Your task to perform on an android device: turn notification dots on Image 0: 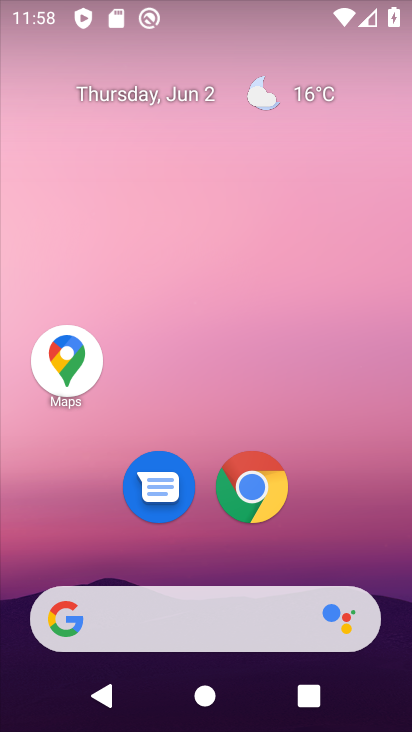
Step 0: drag from (344, 569) to (293, 161)
Your task to perform on an android device: turn notification dots on Image 1: 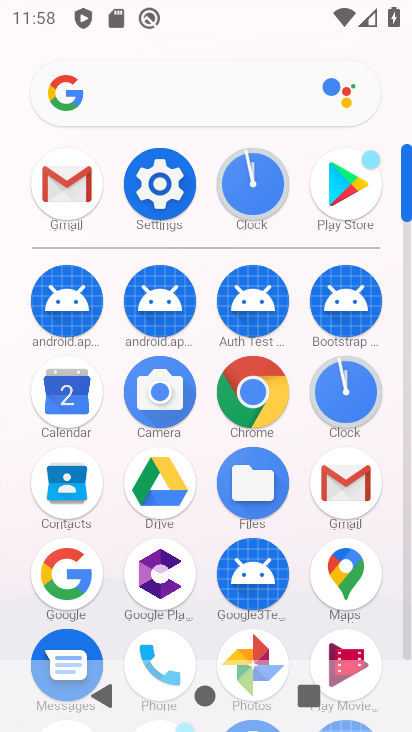
Step 1: click (155, 177)
Your task to perform on an android device: turn notification dots on Image 2: 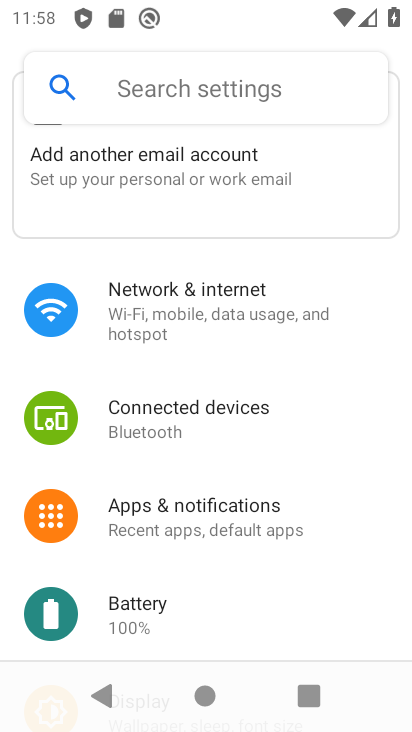
Step 2: click (163, 524)
Your task to perform on an android device: turn notification dots on Image 3: 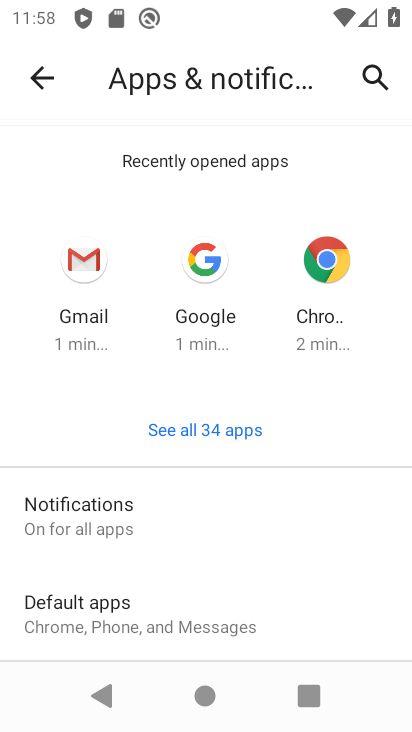
Step 3: drag from (355, 629) to (320, 261)
Your task to perform on an android device: turn notification dots on Image 4: 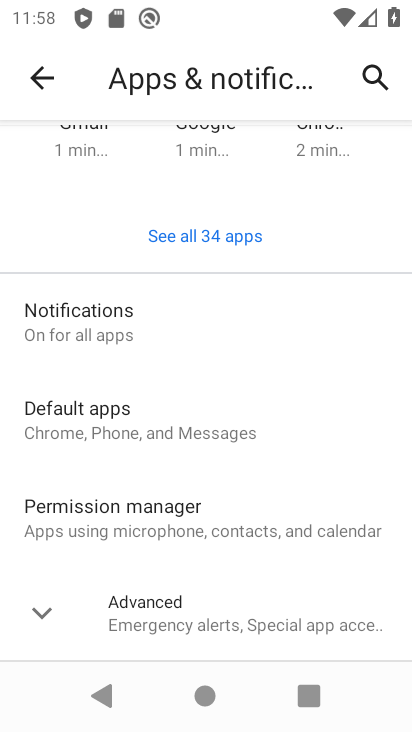
Step 4: click (106, 321)
Your task to perform on an android device: turn notification dots on Image 5: 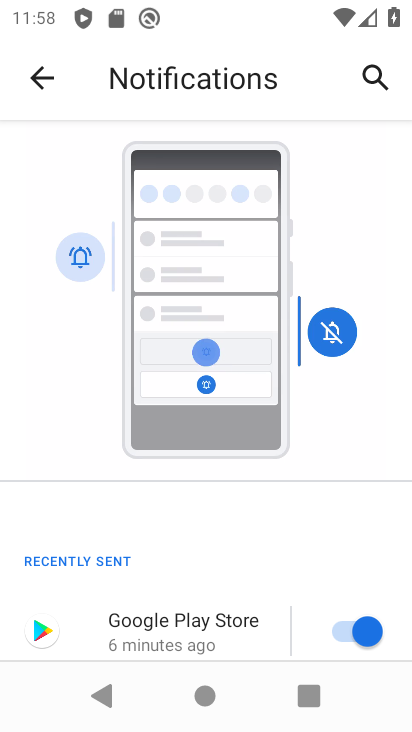
Step 5: drag from (320, 536) to (297, 9)
Your task to perform on an android device: turn notification dots on Image 6: 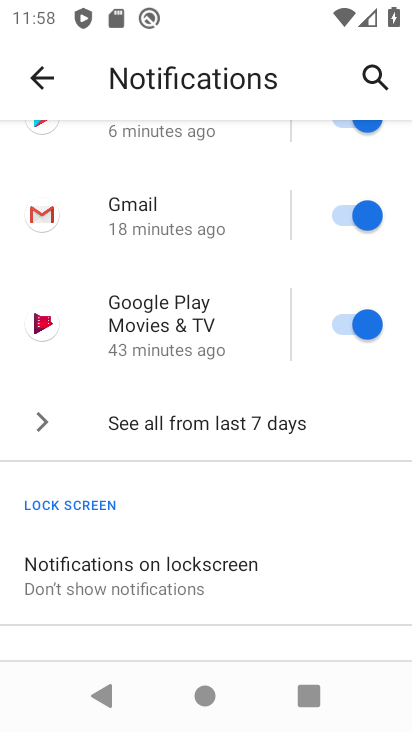
Step 6: drag from (388, 608) to (344, 343)
Your task to perform on an android device: turn notification dots on Image 7: 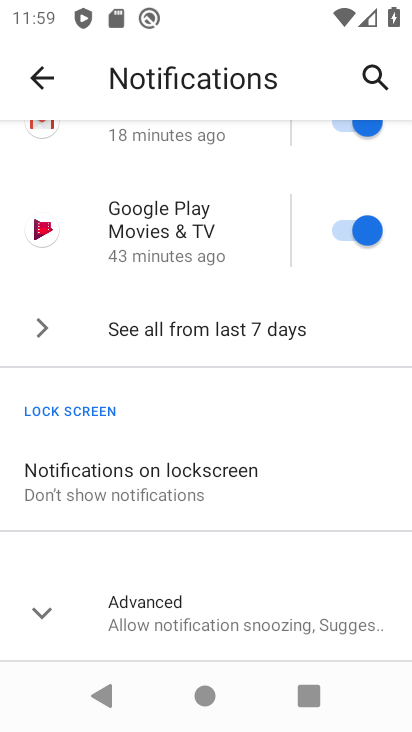
Step 7: click (45, 620)
Your task to perform on an android device: turn notification dots on Image 8: 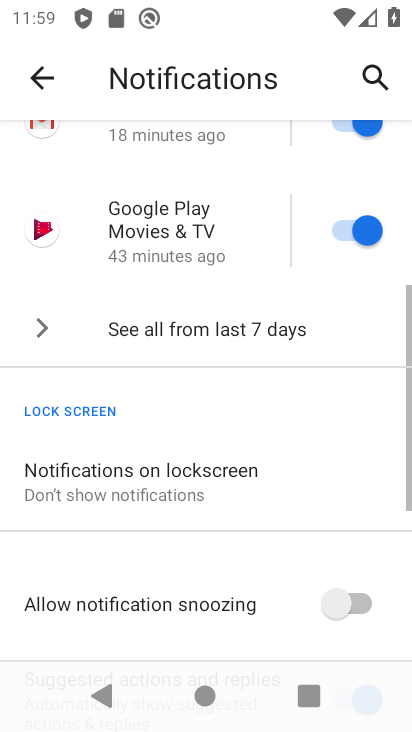
Step 8: task complete